Your task to perform on an android device: Open Wikipedia Image 0: 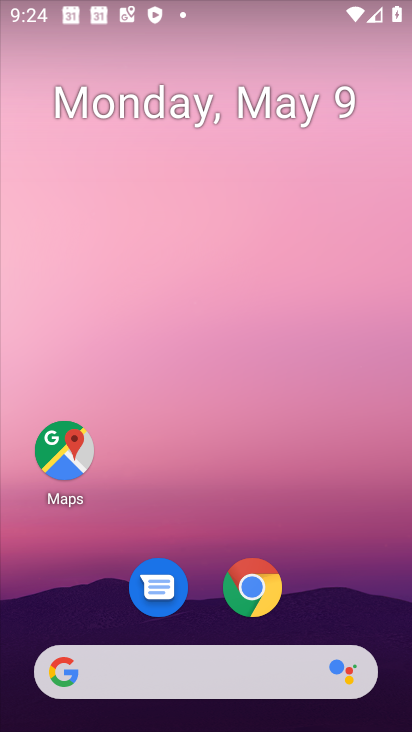
Step 0: click (244, 583)
Your task to perform on an android device: Open Wikipedia Image 1: 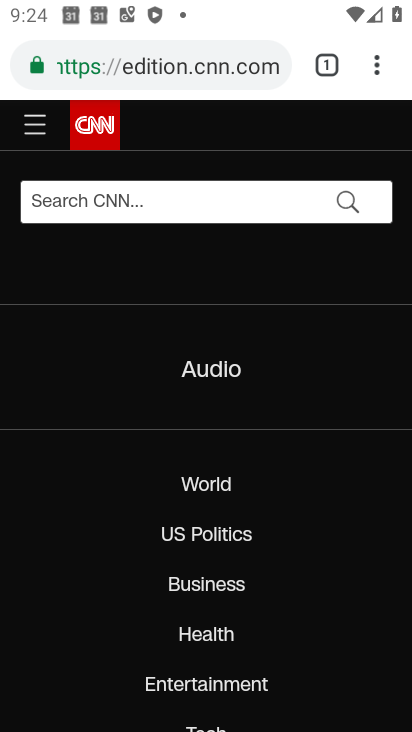
Step 1: click (380, 67)
Your task to perform on an android device: Open Wikipedia Image 2: 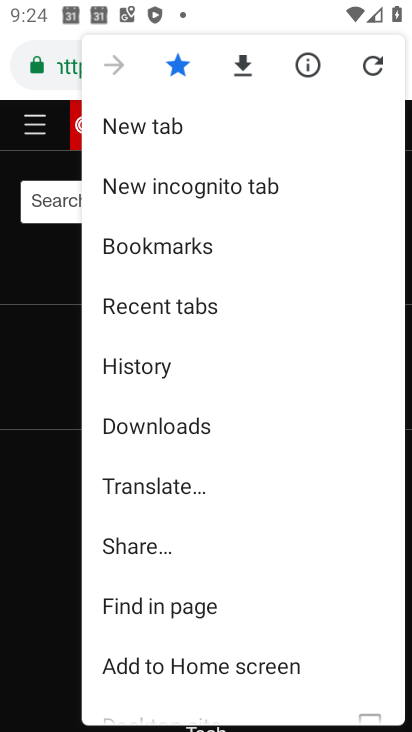
Step 2: click (163, 119)
Your task to perform on an android device: Open Wikipedia Image 3: 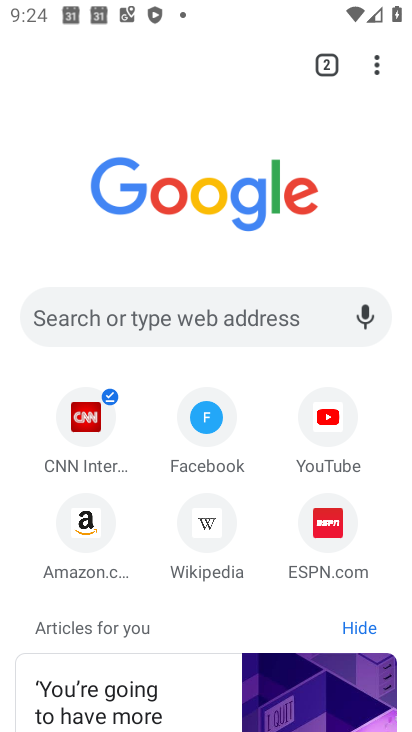
Step 3: click (223, 546)
Your task to perform on an android device: Open Wikipedia Image 4: 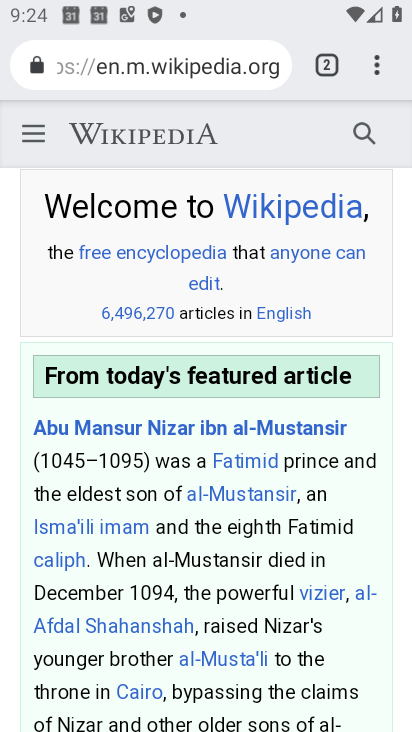
Step 4: task complete